Your task to perform on an android device: empty trash in the gmail app Image 0: 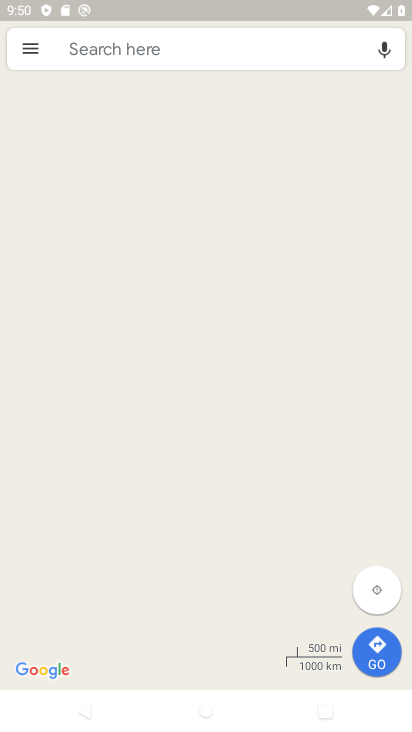
Step 0: press home button
Your task to perform on an android device: empty trash in the gmail app Image 1: 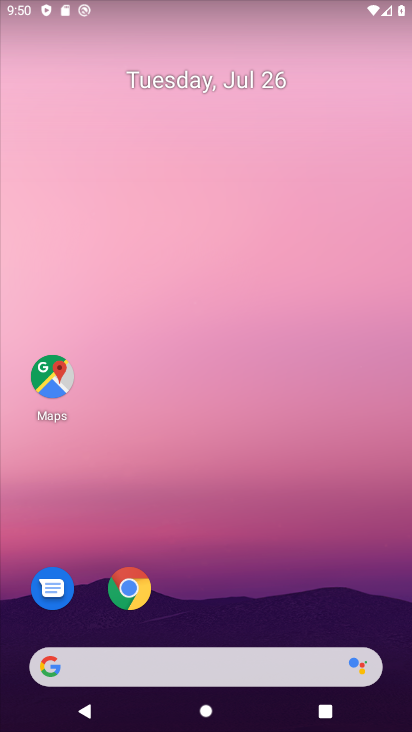
Step 1: drag from (236, 623) to (207, 77)
Your task to perform on an android device: empty trash in the gmail app Image 2: 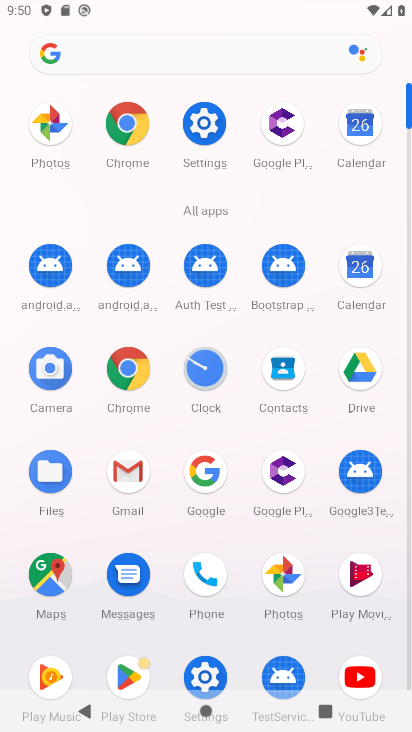
Step 2: click (131, 478)
Your task to perform on an android device: empty trash in the gmail app Image 3: 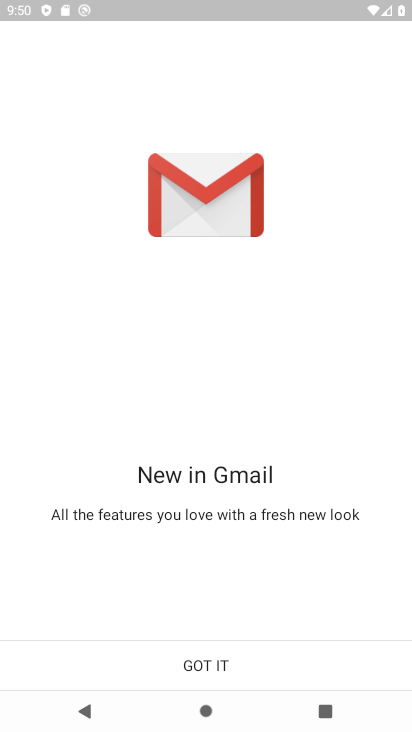
Step 3: click (202, 674)
Your task to perform on an android device: empty trash in the gmail app Image 4: 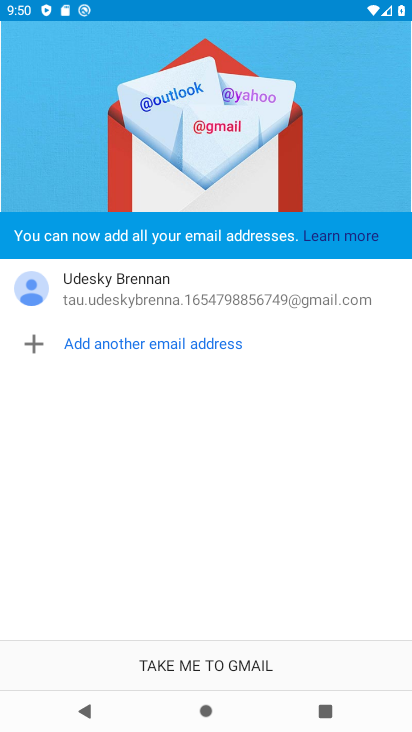
Step 4: click (202, 674)
Your task to perform on an android device: empty trash in the gmail app Image 5: 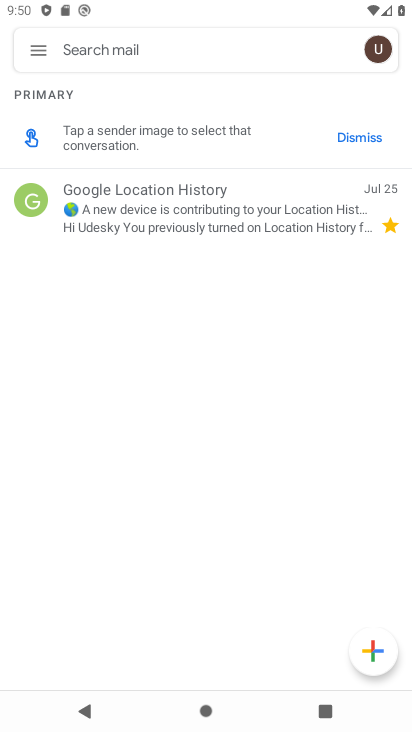
Step 5: click (27, 53)
Your task to perform on an android device: empty trash in the gmail app Image 6: 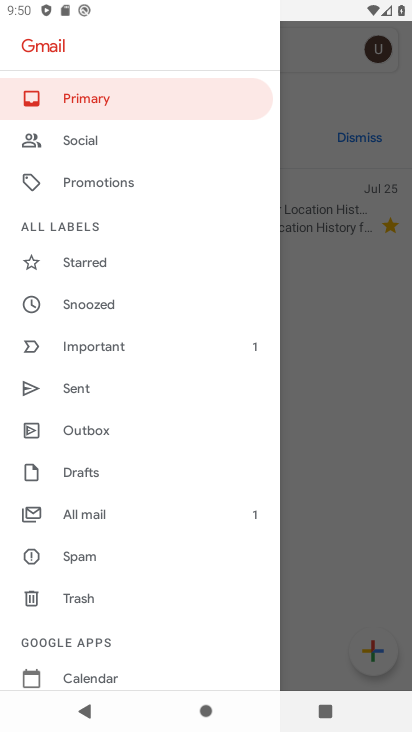
Step 6: click (91, 602)
Your task to perform on an android device: empty trash in the gmail app Image 7: 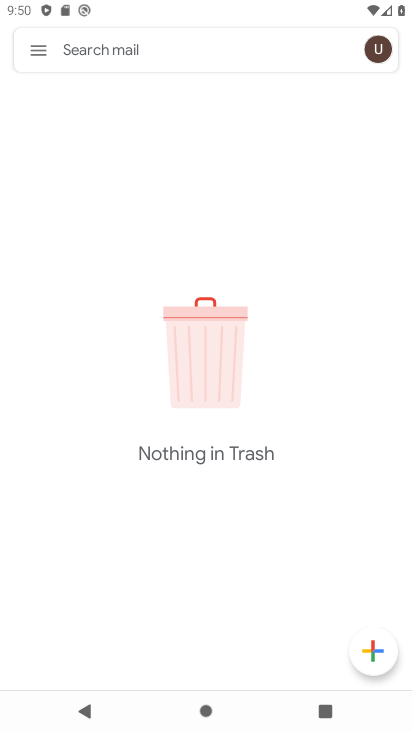
Step 7: task complete